Your task to perform on an android device: change keyboard looks Image 0: 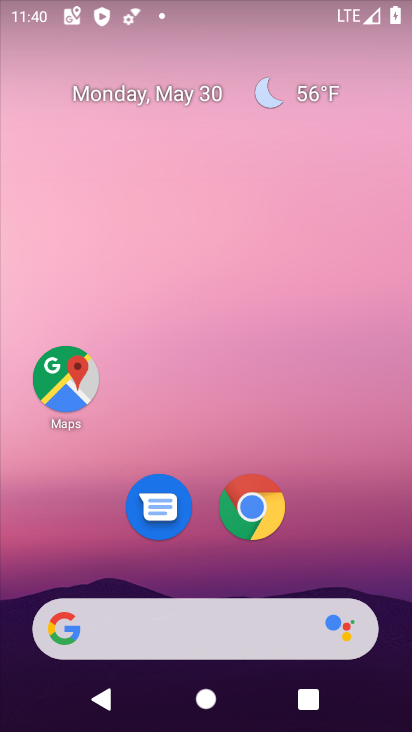
Step 0: drag from (337, 567) to (294, 142)
Your task to perform on an android device: change keyboard looks Image 1: 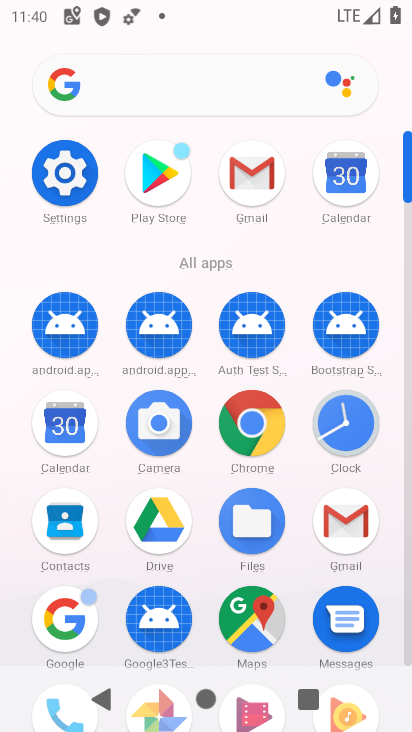
Step 1: click (72, 155)
Your task to perform on an android device: change keyboard looks Image 2: 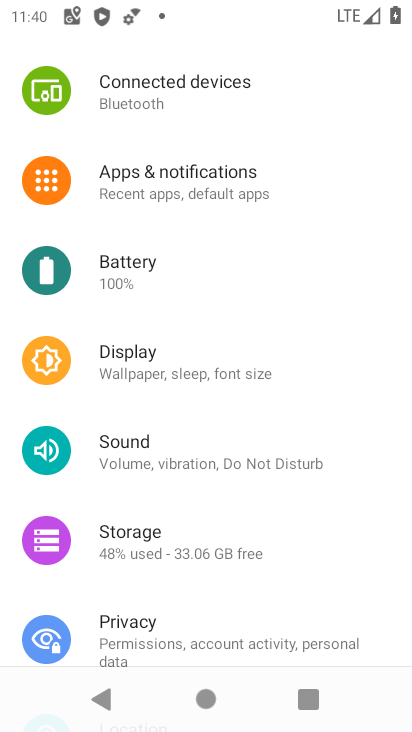
Step 2: drag from (334, 594) to (302, 4)
Your task to perform on an android device: change keyboard looks Image 3: 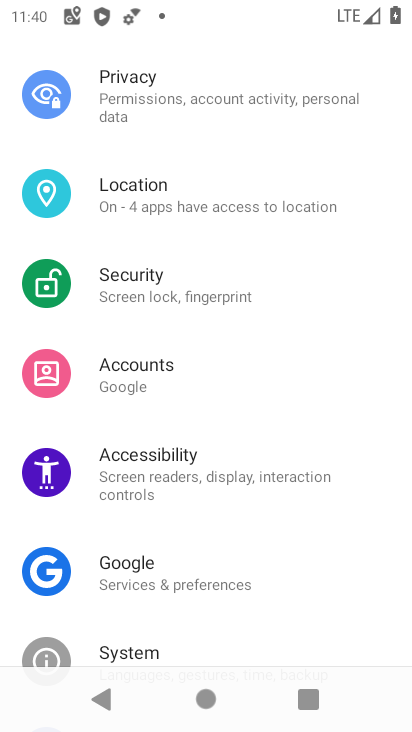
Step 3: drag from (313, 152) to (210, 731)
Your task to perform on an android device: change keyboard looks Image 4: 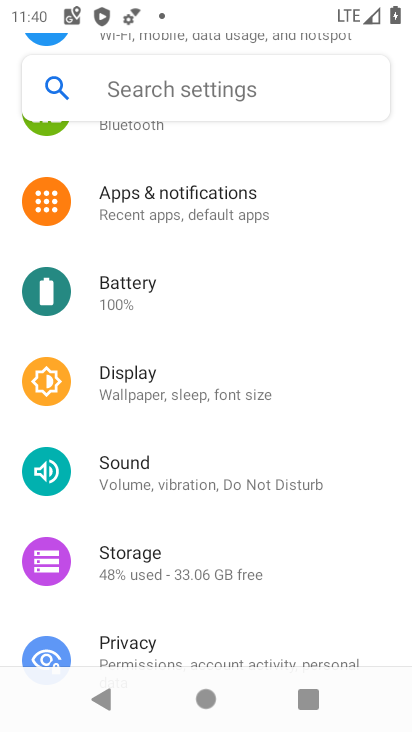
Step 4: drag from (336, 186) to (327, 132)
Your task to perform on an android device: change keyboard looks Image 5: 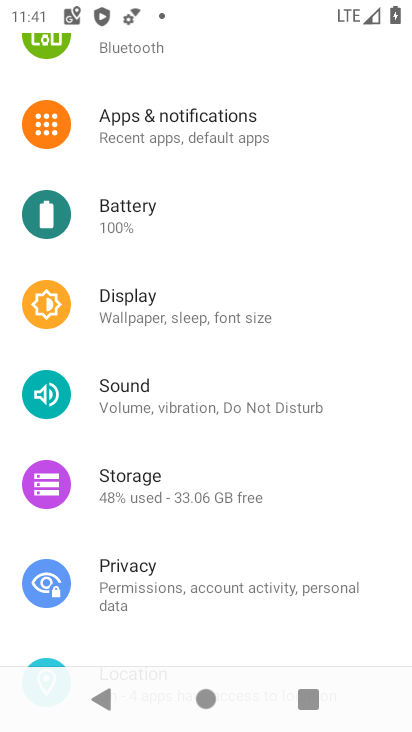
Step 5: drag from (320, 247) to (306, 1)
Your task to perform on an android device: change keyboard looks Image 6: 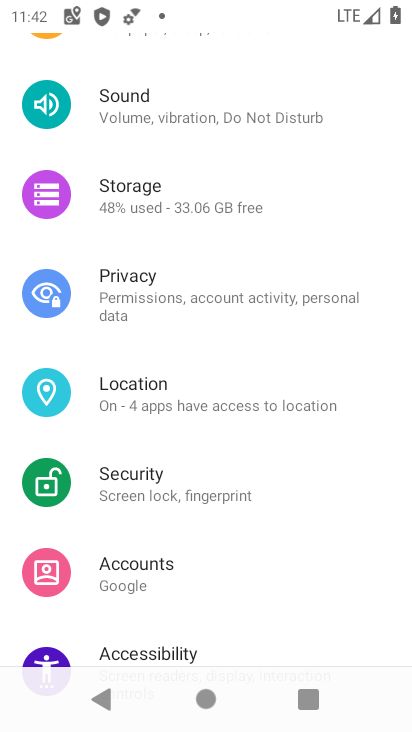
Step 6: drag from (313, 619) to (313, 262)
Your task to perform on an android device: change keyboard looks Image 7: 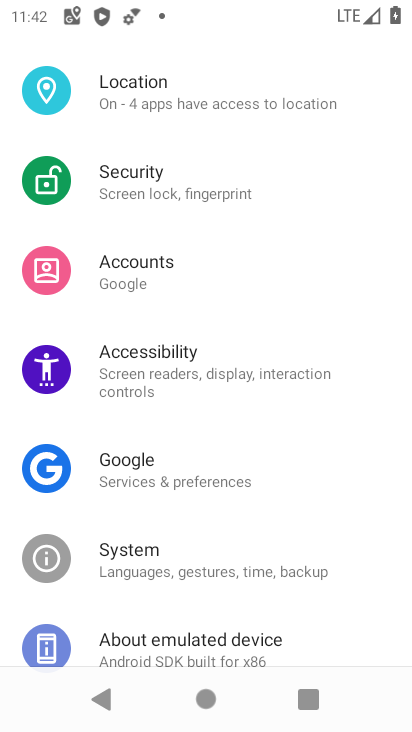
Step 7: click (144, 563)
Your task to perform on an android device: change keyboard looks Image 8: 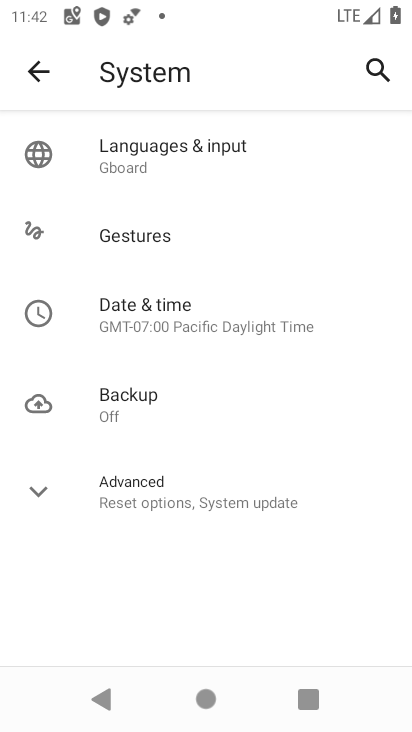
Step 8: click (192, 147)
Your task to perform on an android device: change keyboard looks Image 9: 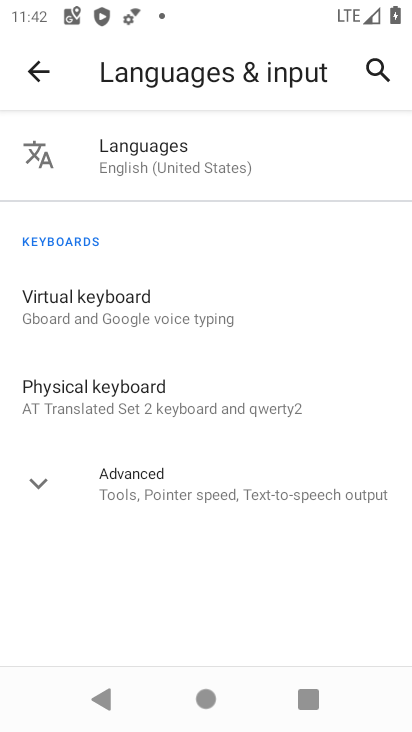
Step 9: click (135, 300)
Your task to perform on an android device: change keyboard looks Image 10: 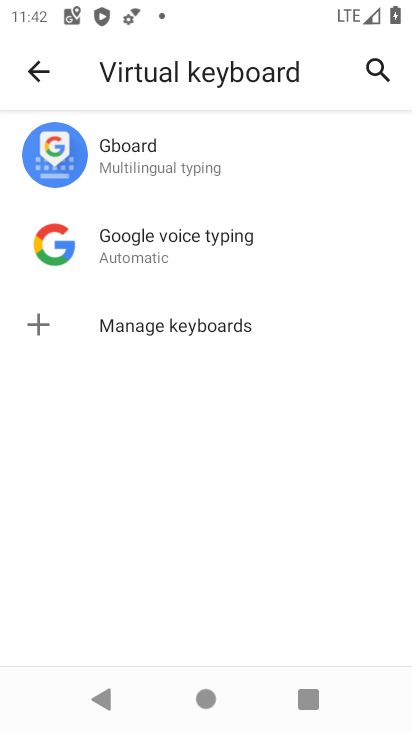
Step 10: click (140, 170)
Your task to perform on an android device: change keyboard looks Image 11: 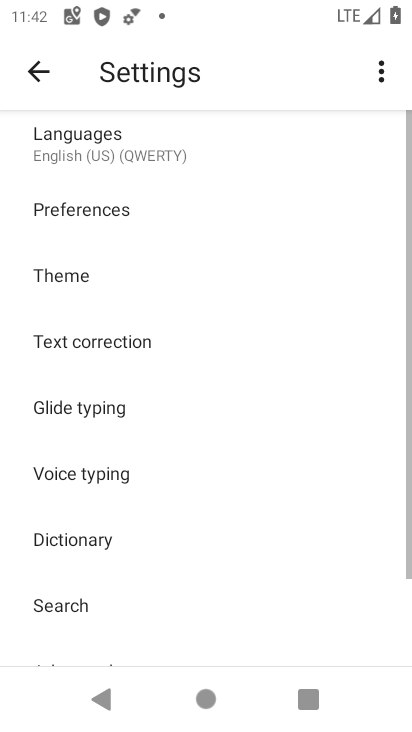
Step 11: click (68, 284)
Your task to perform on an android device: change keyboard looks Image 12: 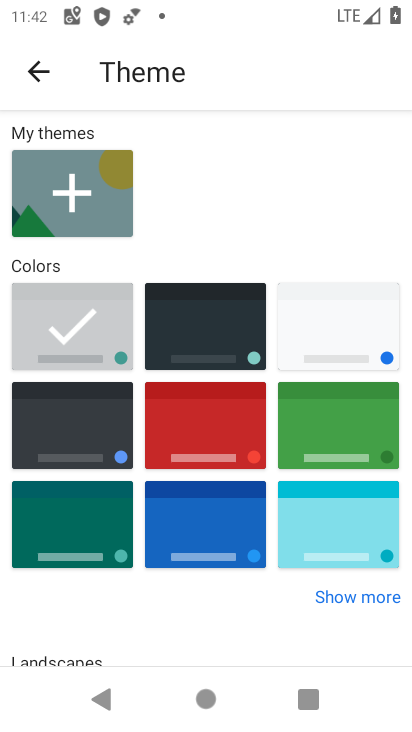
Step 12: click (209, 421)
Your task to perform on an android device: change keyboard looks Image 13: 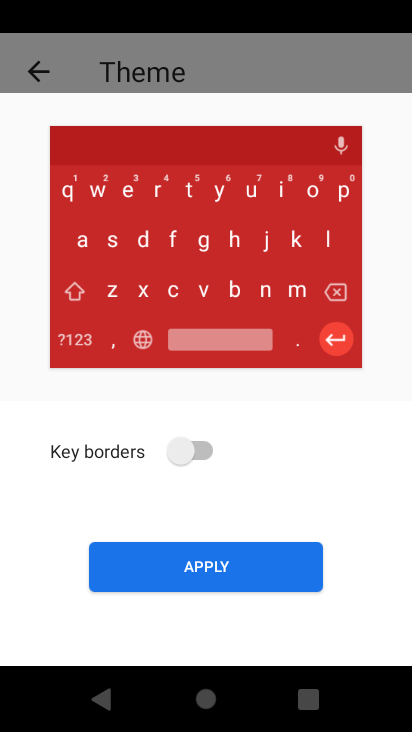
Step 13: click (193, 446)
Your task to perform on an android device: change keyboard looks Image 14: 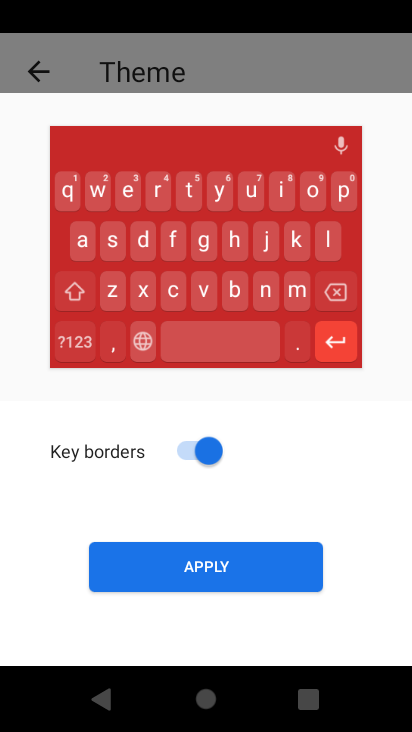
Step 14: click (213, 557)
Your task to perform on an android device: change keyboard looks Image 15: 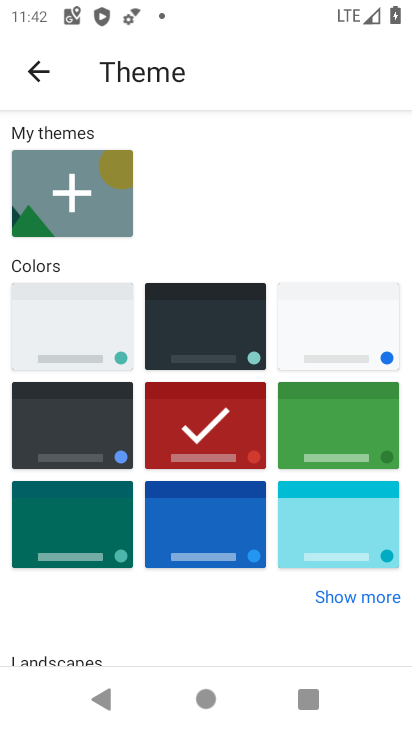
Step 15: task complete